Your task to perform on an android device: turn on javascript in the chrome app Image 0: 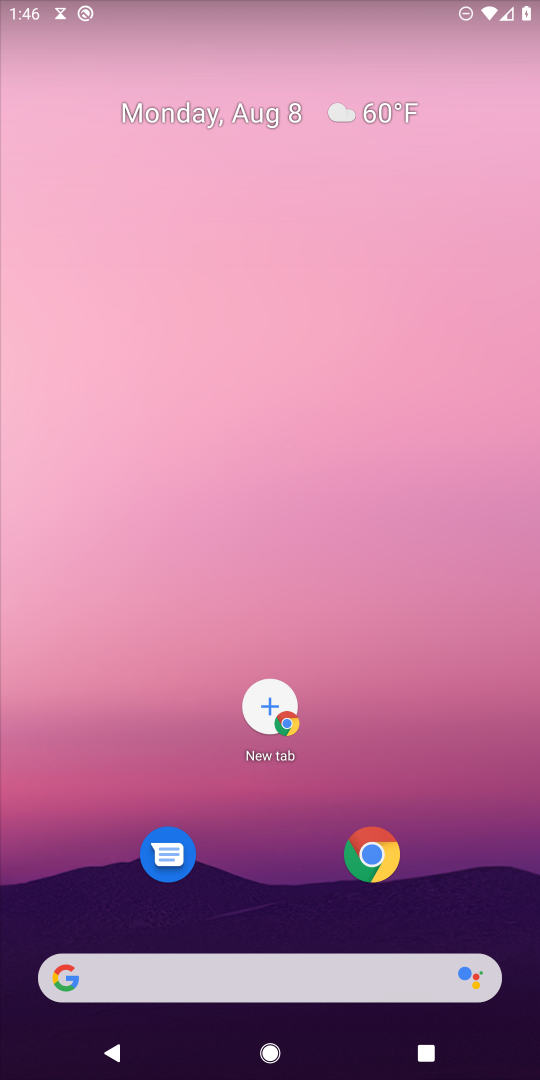
Step 0: press home button
Your task to perform on an android device: turn on javascript in the chrome app Image 1: 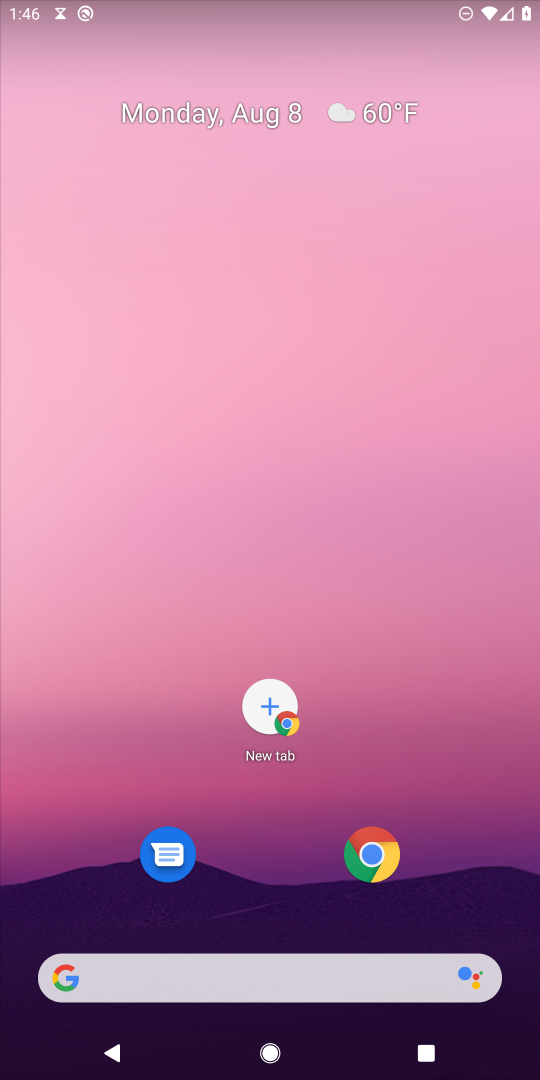
Step 1: click (383, 846)
Your task to perform on an android device: turn on javascript in the chrome app Image 2: 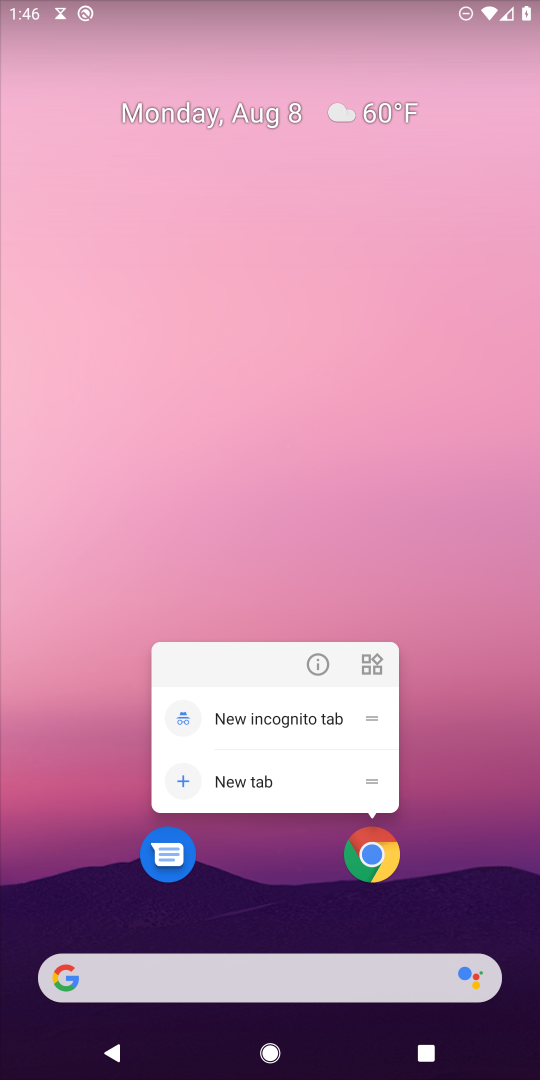
Step 2: click (372, 852)
Your task to perform on an android device: turn on javascript in the chrome app Image 3: 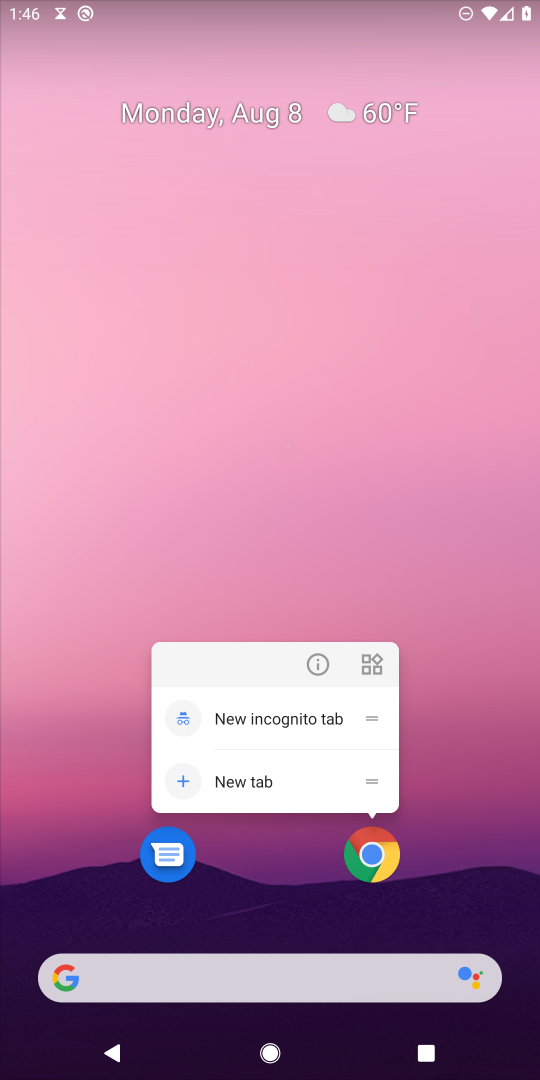
Step 3: click (372, 852)
Your task to perform on an android device: turn on javascript in the chrome app Image 4: 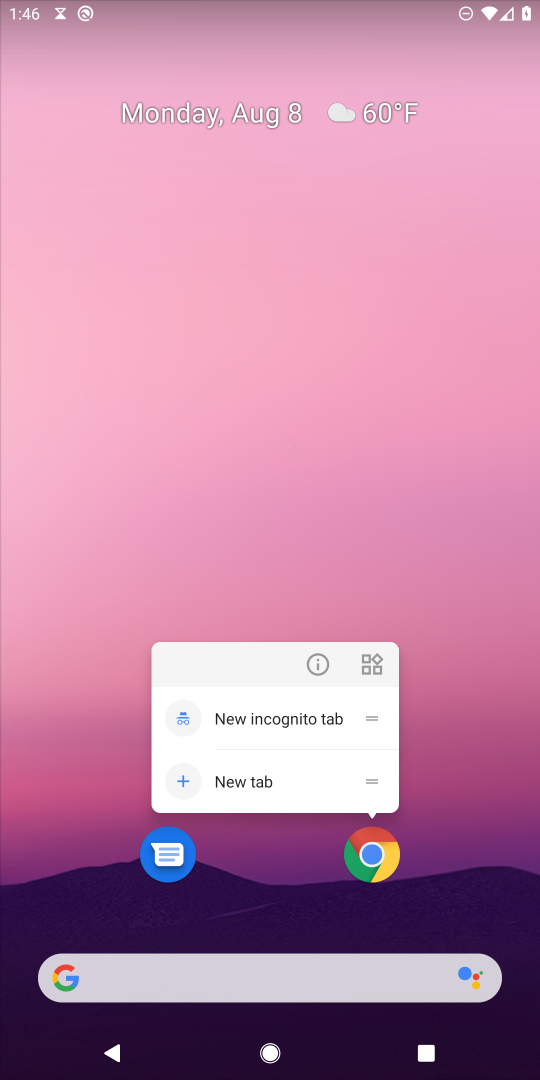
Step 4: click (372, 853)
Your task to perform on an android device: turn on javascript in the chrome app Image 5: 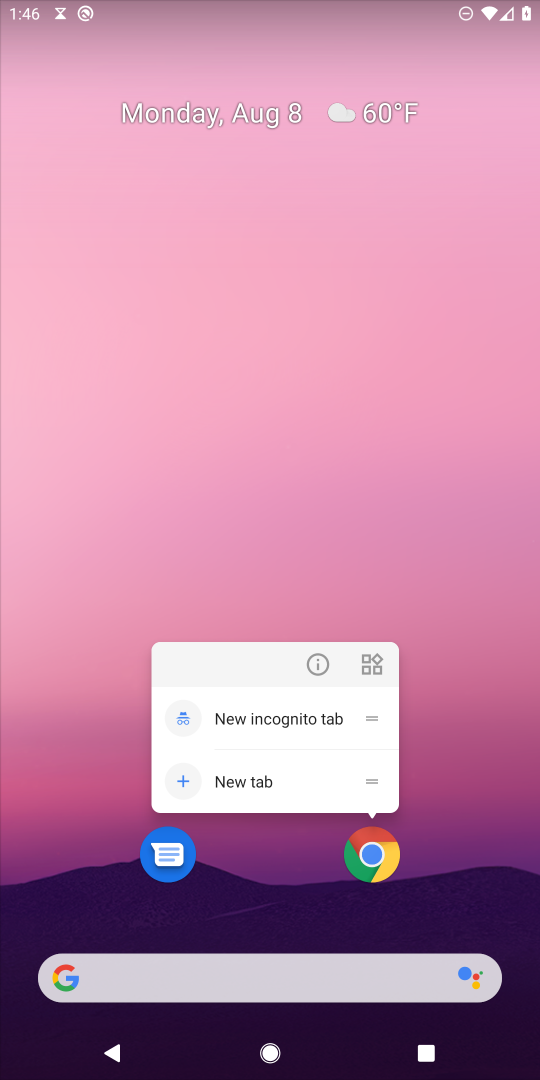
Step 5: click (379, 848)
Your task to perform on an android device: turn on javascript in the chrome app Image 6: 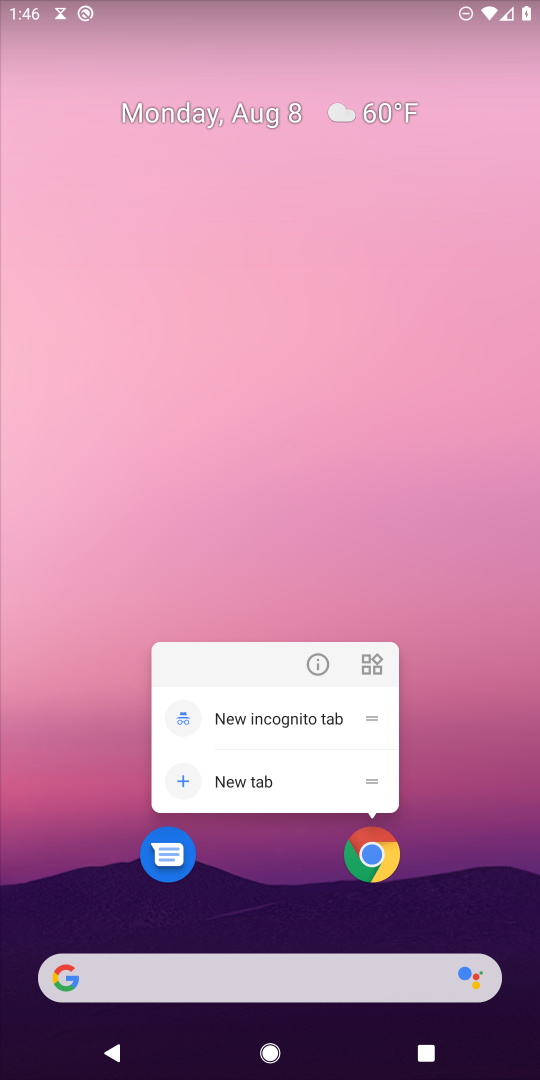
Step 6: click (378, 849)
Your task to perform on an android device: turn on javascript in the chrome app Image 7: 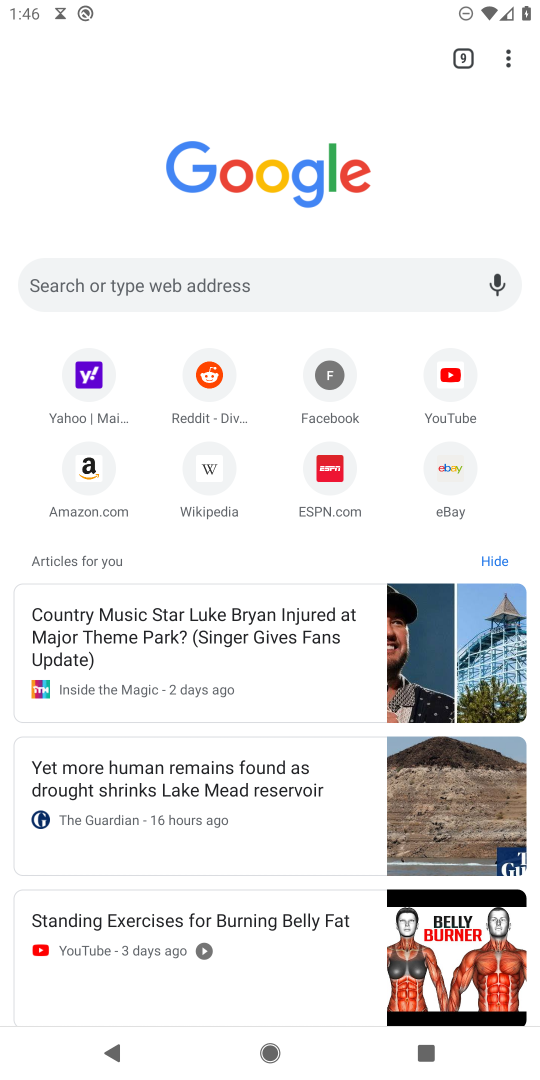
Step 7: drag from (512, 62) to (279, 554)
Your task to perform on an android device: turn on javascript in the chrome app Image 8: 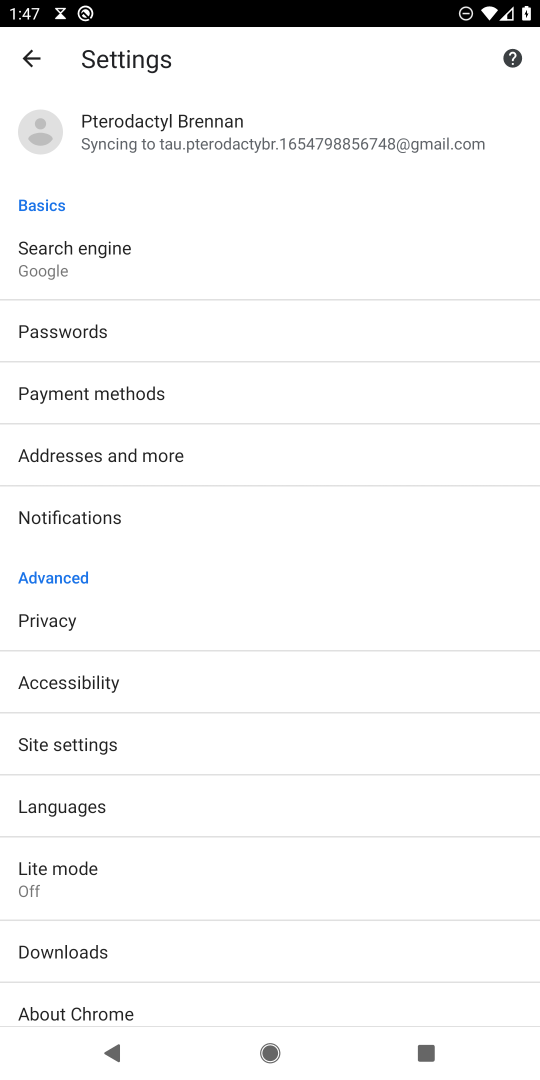
Step 8: click (82, 733)
Your task to perform on an android device: turn on javascript in the chrome app Image 9: 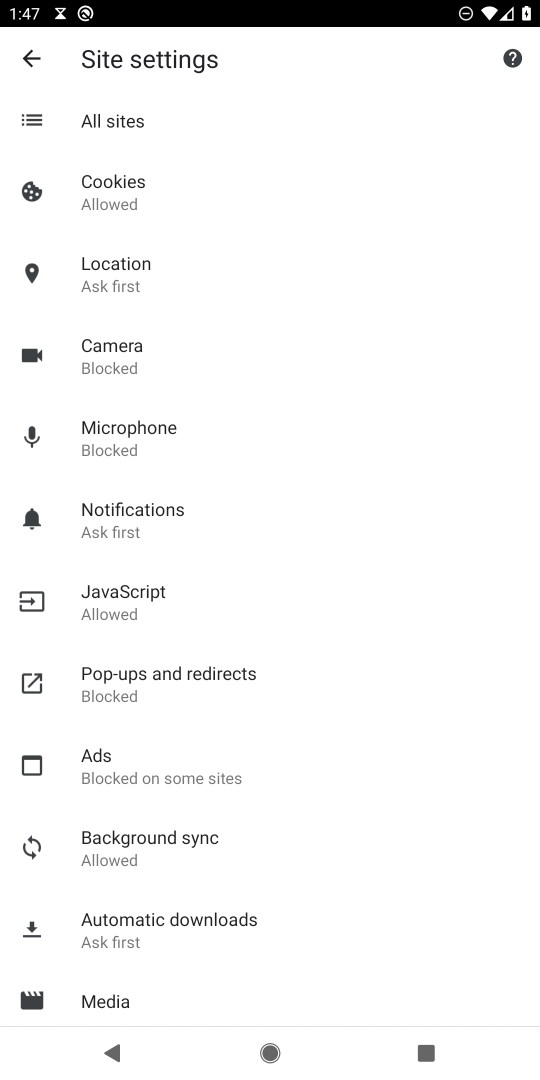
Step 9: click (107, 603)
Your task to perform on an android device: turn on javascript in the chrome app Image 10: 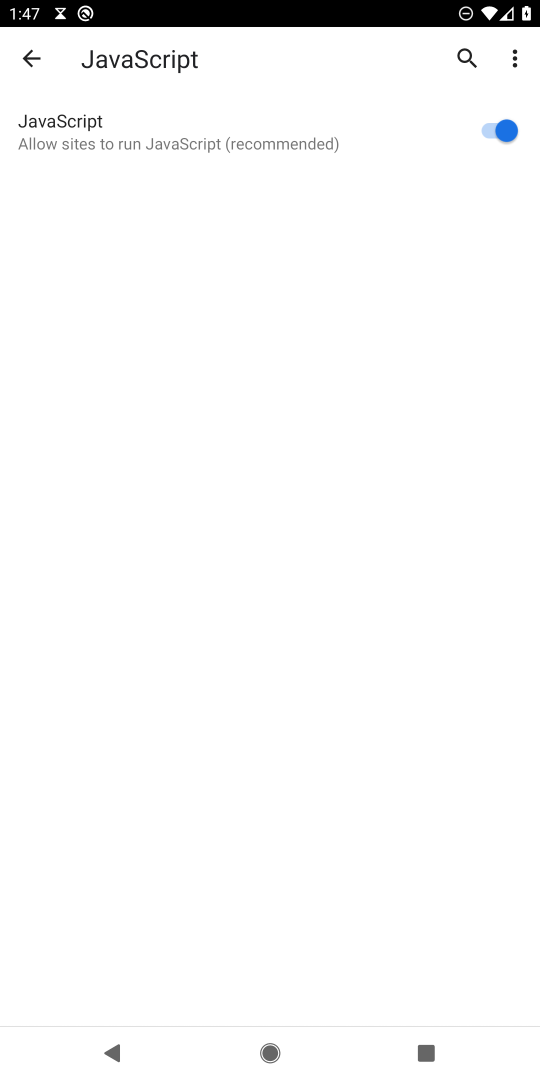
Step 10: task complete